Your task to perform on an android device: Go to Google Image 0: 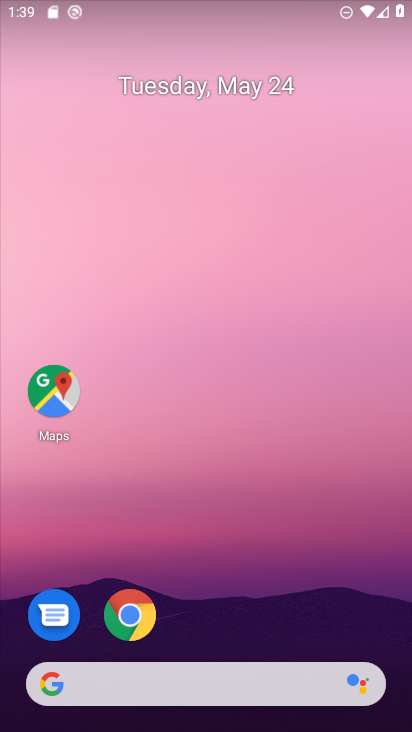
Step 0: drag from (255, 575) to (343, 19)
Your task to perform on an android device: Go to Google Image 1: 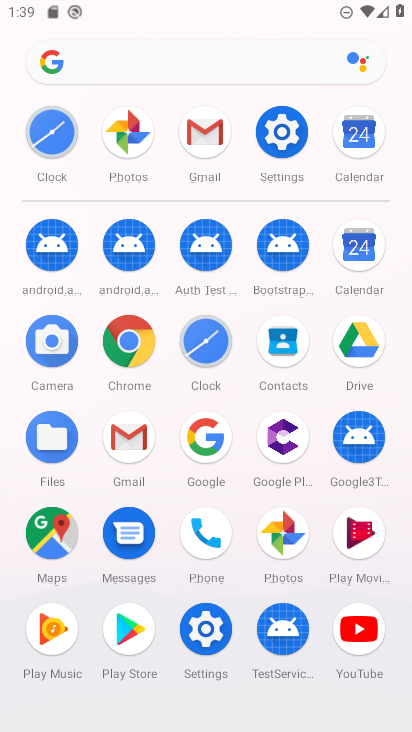
Step 1: click (214, 445)
Your task to perform on an android device: Go to Google Image 2: 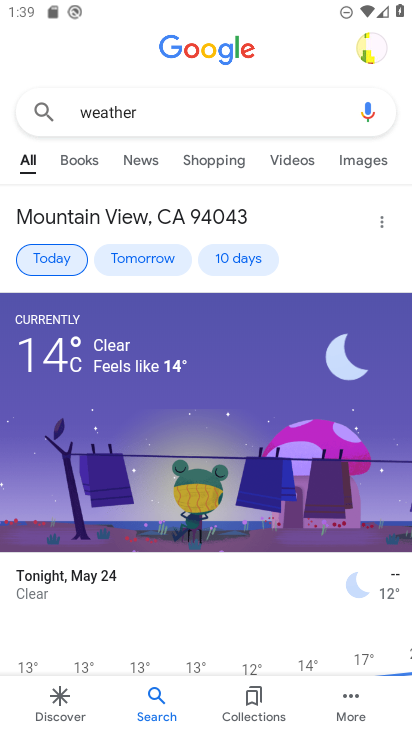
Step 2: task complete